Your task to perform on an android device: Open settings on Google Maps Image 0: 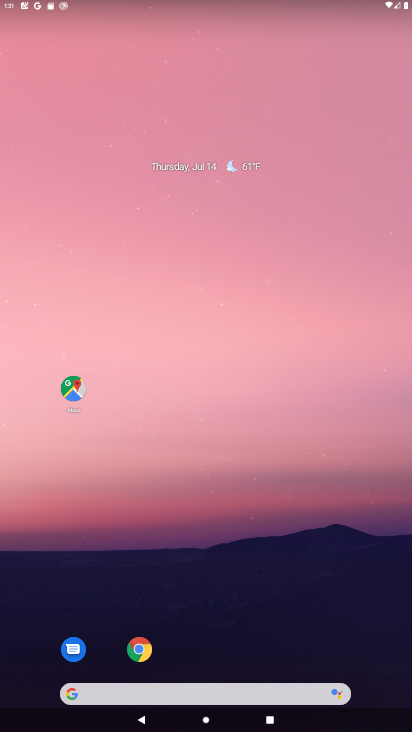
Step 0: drag from (241, 656) to (217, 30)
Your task to perform on an android device: Open settings on Google Maps Image 1: 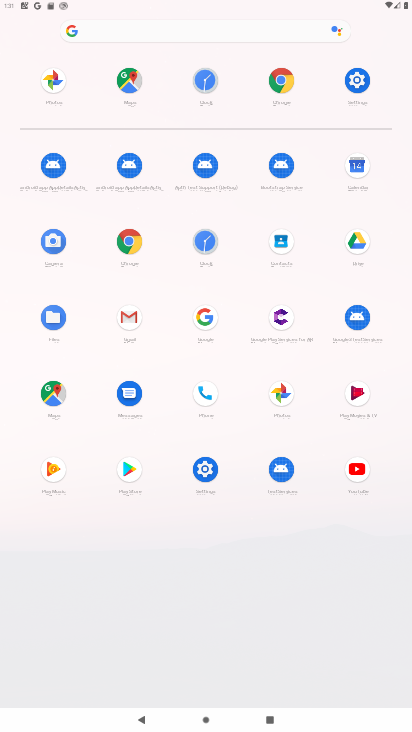
Step 1: click (367, 74)
Your task to perform on an android device: Open settings on Google Maps Image 2: 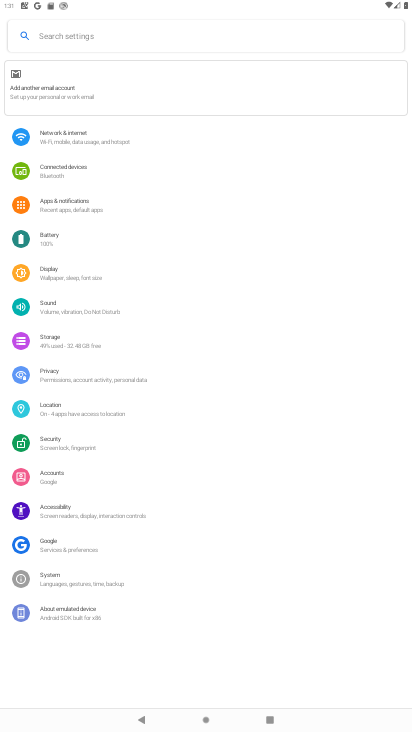
Step 2: drag from (179, 686) to (195, 16)
Your task to perform on an android device: Open settings on Google Maps Image 3: 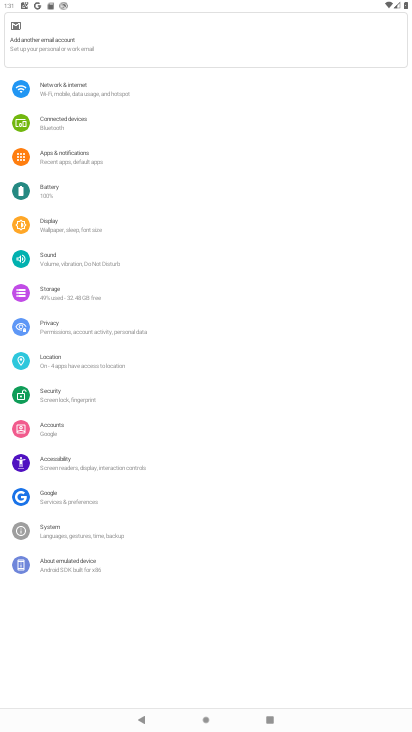
Step 3: press home button
Your task to perform on an android device: Open settings on Google Maps Image 4: 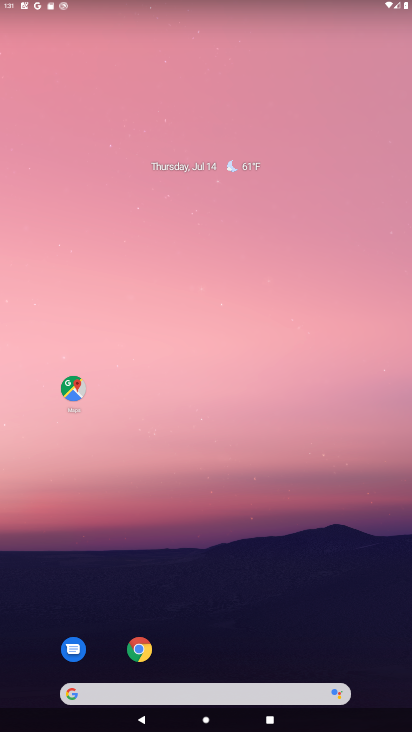
Step 4: drag from (290, 688) to (323, 29)
Your task to perform on an android device: Open settings on Google Maps Image 5: 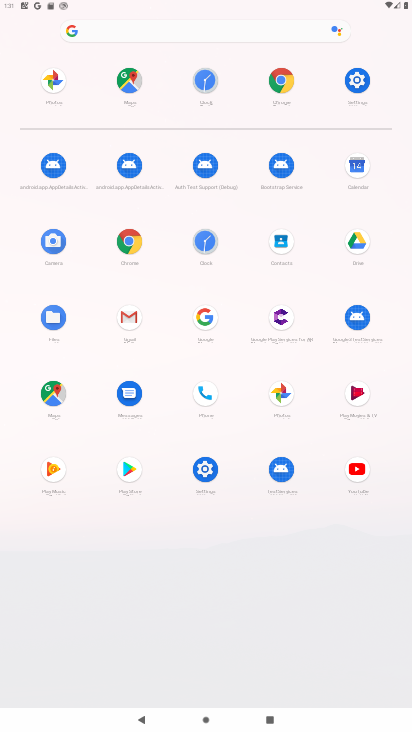
Step 5: click (53, 400)
Your task to perform on an android device: Open settings on Google Maps Image 6: 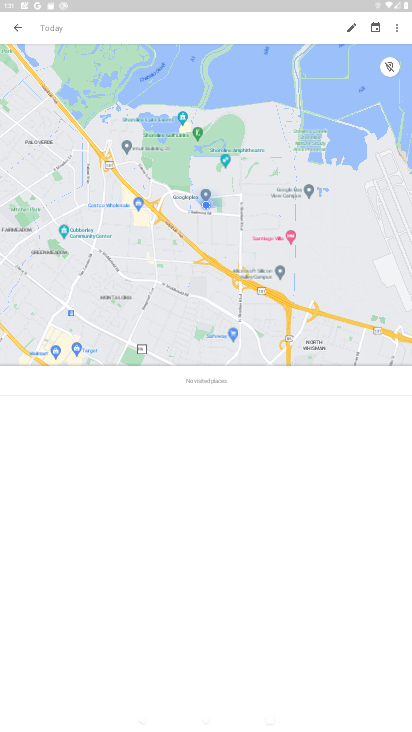
Step 6: click (397, 27)
Your task to perform on an android device: Open settings on Google Maps Image 7: 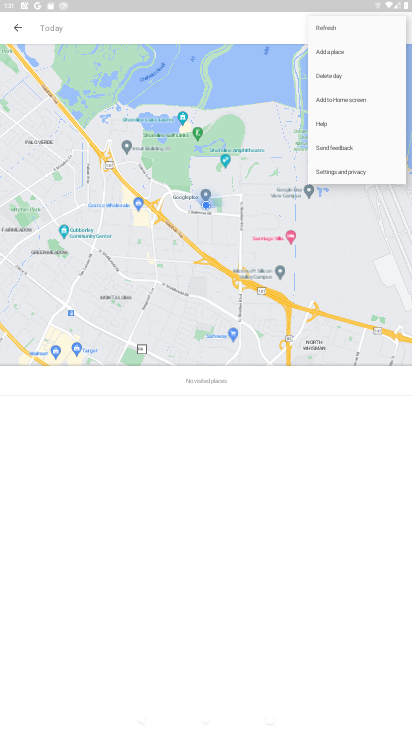
Step 7: click (354, 172)
Your task to perform on an android device: Open settings on Google Maps Image 8: 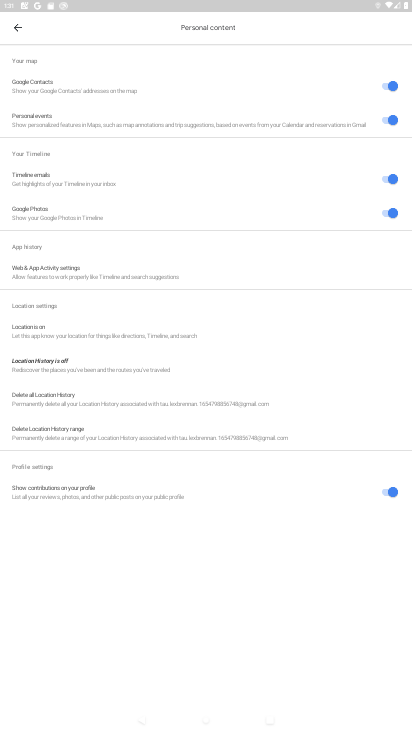
Step 8: task complete